Your task to perform on an android device: turn on wifi Image 0: 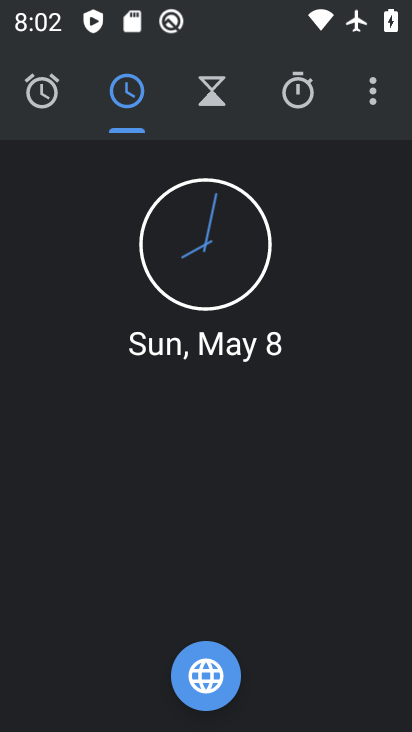
Step 0: press home button
Your task to perform on an android device: turn on wifi Image 1: 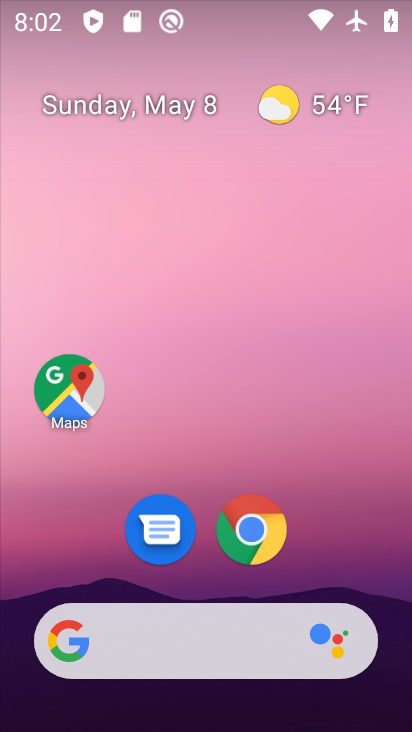
Step 1: drag from (354, 584) to (304, 129)
Your task to perform on an android device: turn on wifi Image 2: 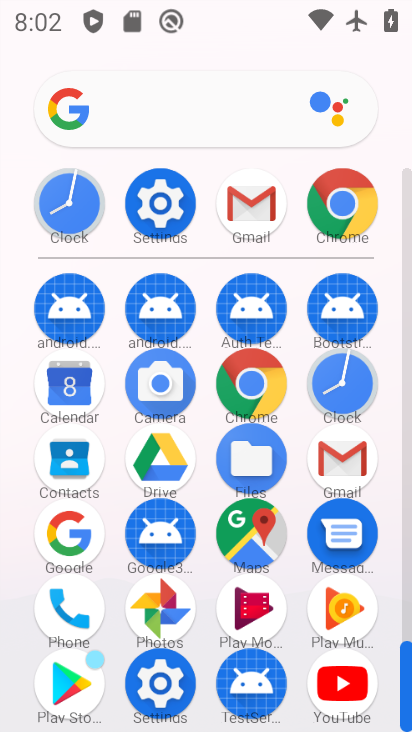
Step 2: click (158, 203)
Your task to perform on an android device: turn on wifi Image 3: 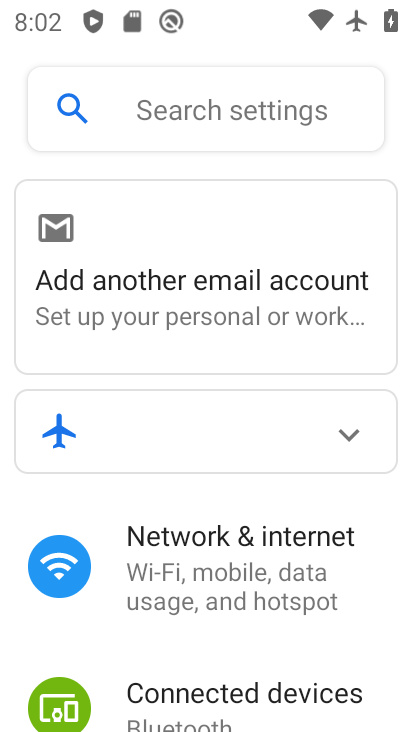
Step 3: click (208, 567)
Your task to perform on an android device: turn on wifi Image 4: 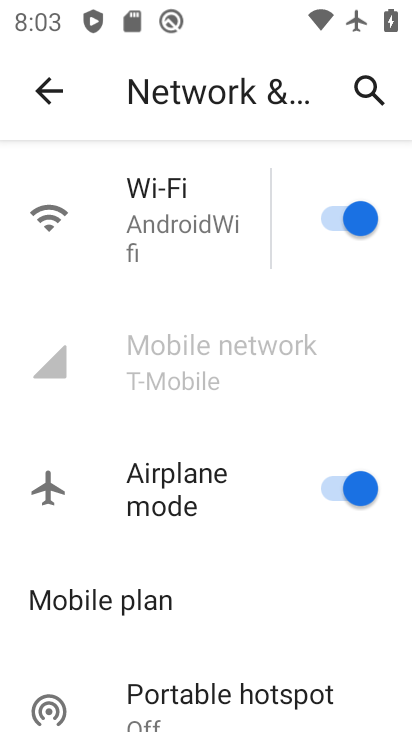
Step 4: task complete